Your task to perform on an android device: What is the recent news? Image 0: 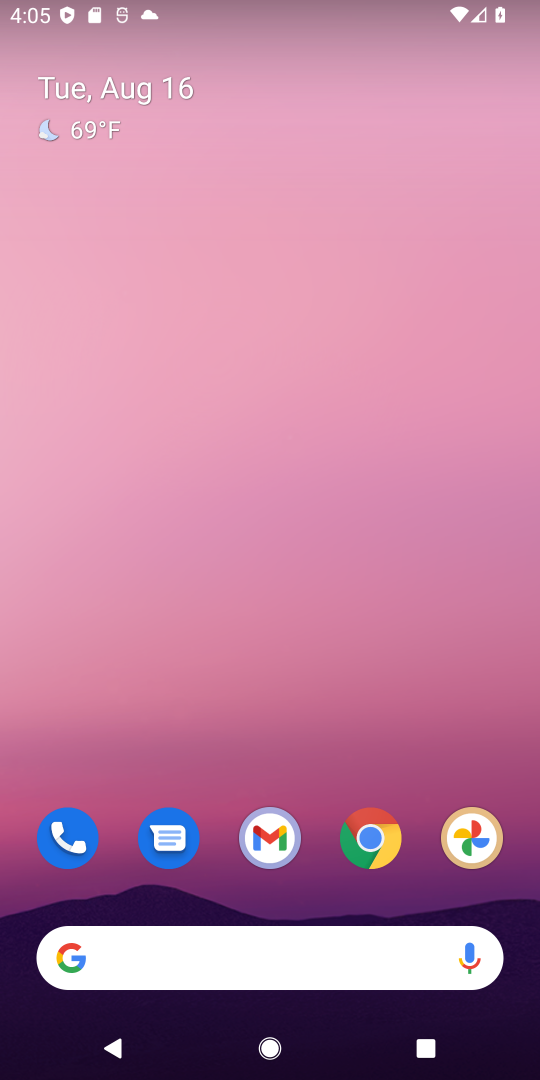
Step 0: drag from (79, 494) to (428, 431)
Your task to perform on an android device: What is the recent news? Image 1: 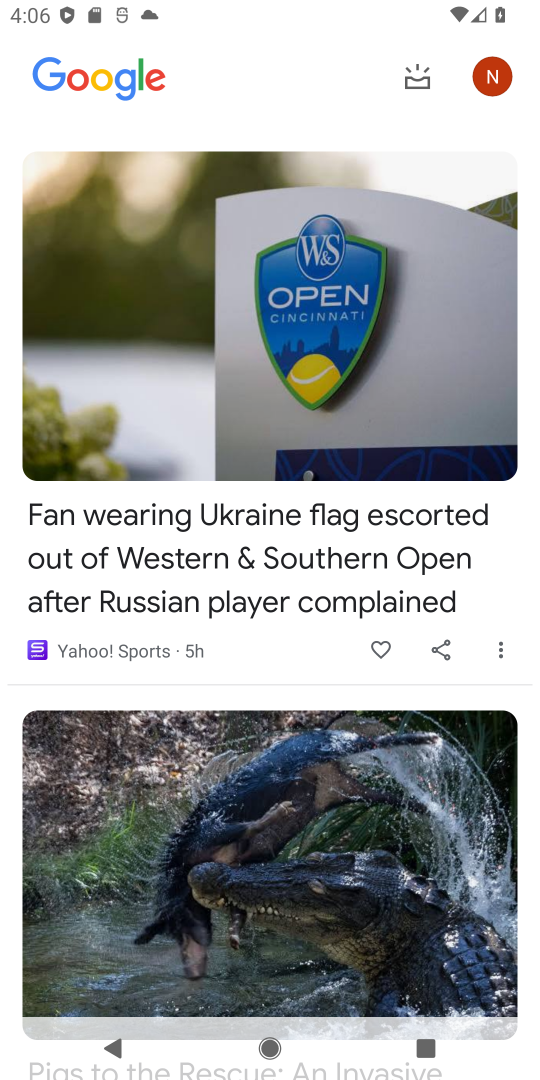
Step 1: task complete